Your task to perform on an android device: install app "AliExpress" Image 0: 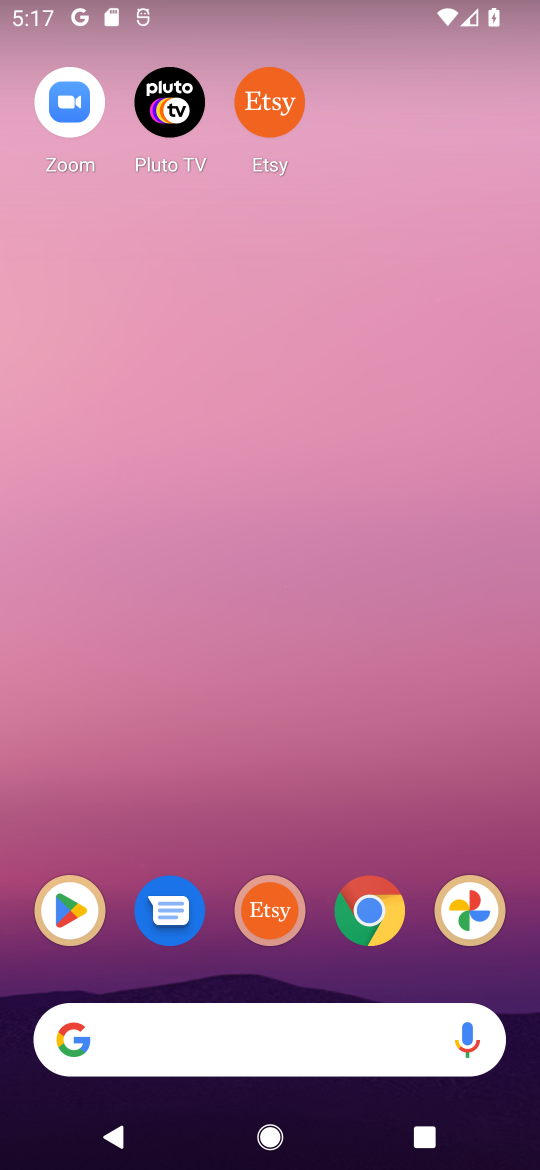
Step 0: click (62, 914)
Your task to perform on an android device: install app "AliExpress" Image 1: 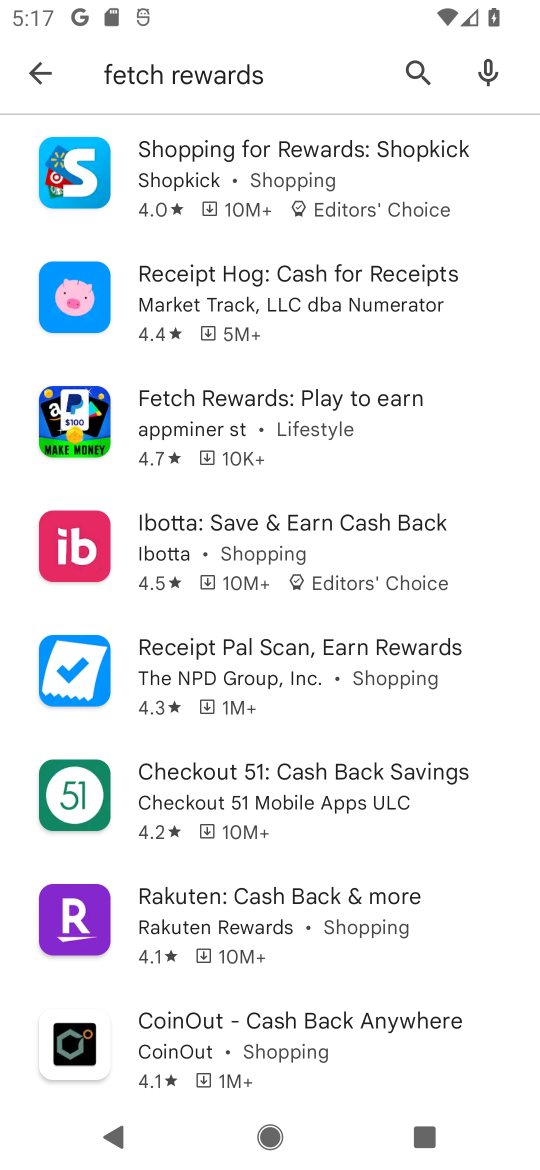
Step 1: click (418, 80)
Your task to perform on an android device: install app "AliExpress" Image 2: 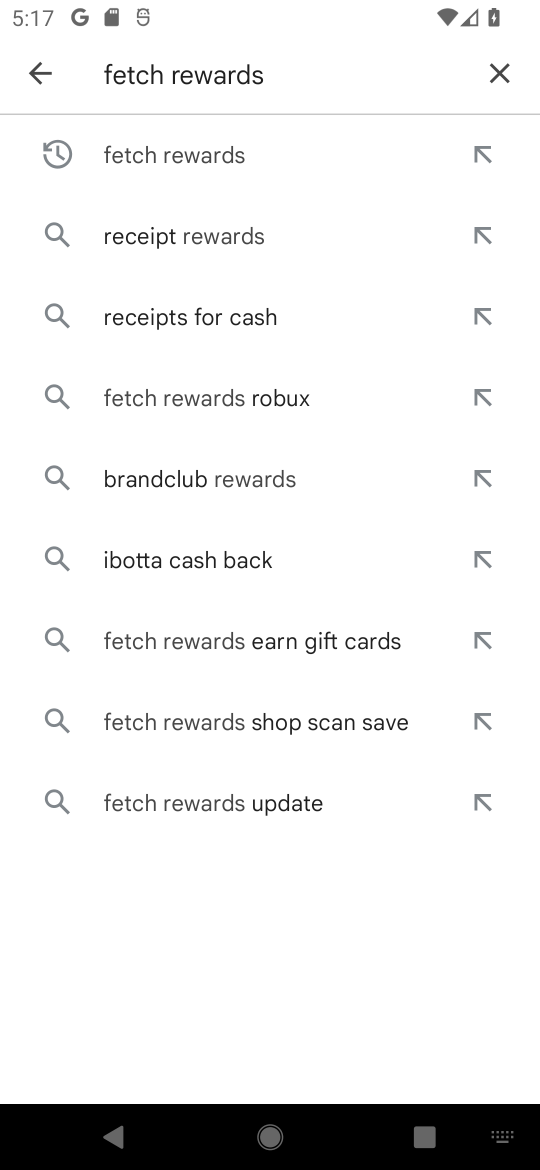
Step 2: click (492, 62)
Your task to perform on an android device: install app "AliExpress" Image 3: 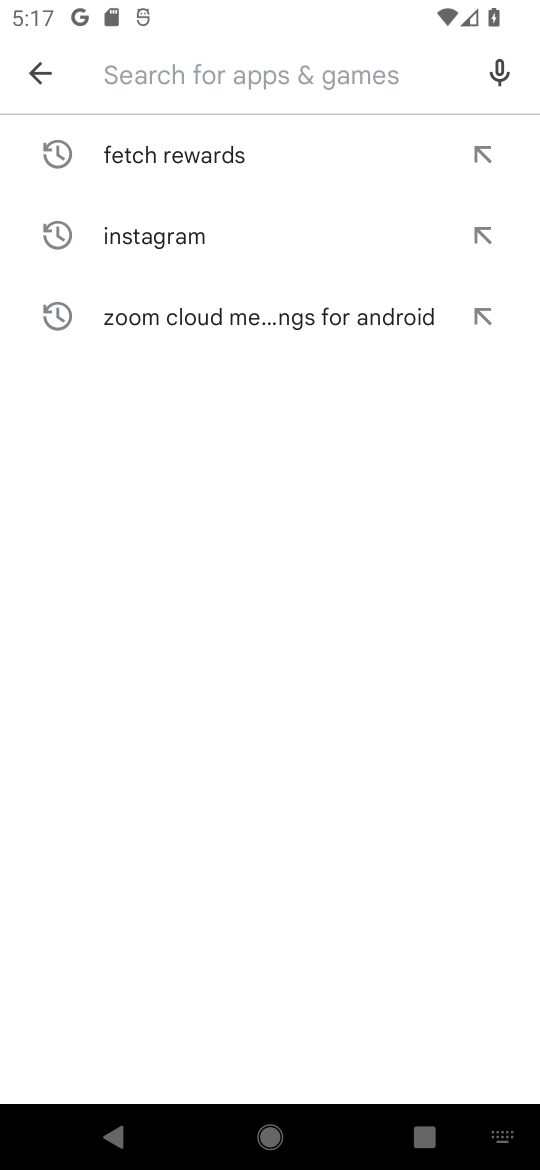
Step 3: type "AliExpress"
Your task to perform on an android device: install app "AliExpress" Image 4: 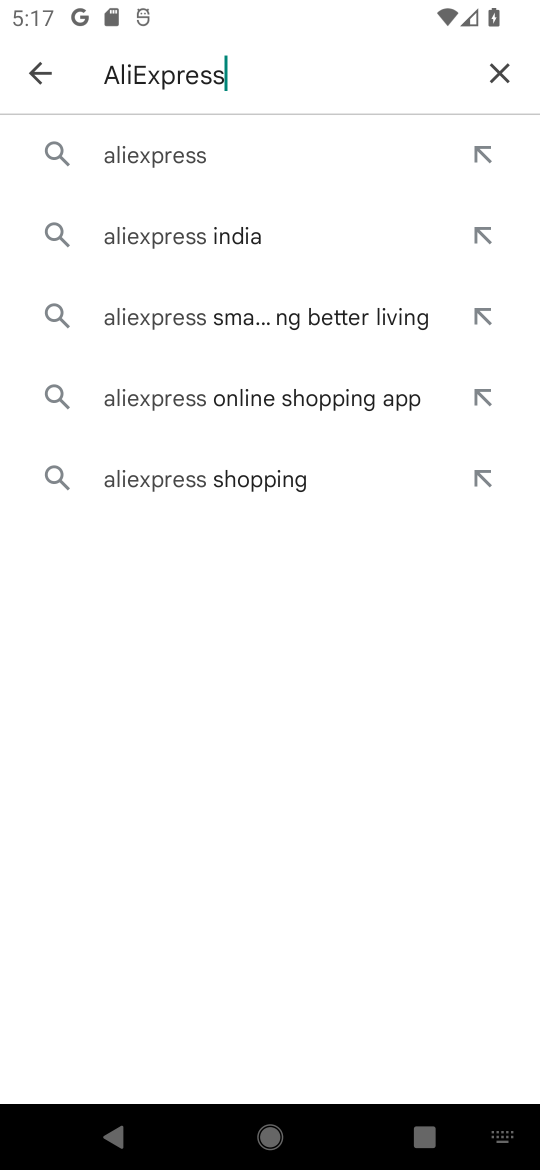
Step 4: click (200, 167)
Your task to perform on an android device: install app "AliExpress" Image 5: 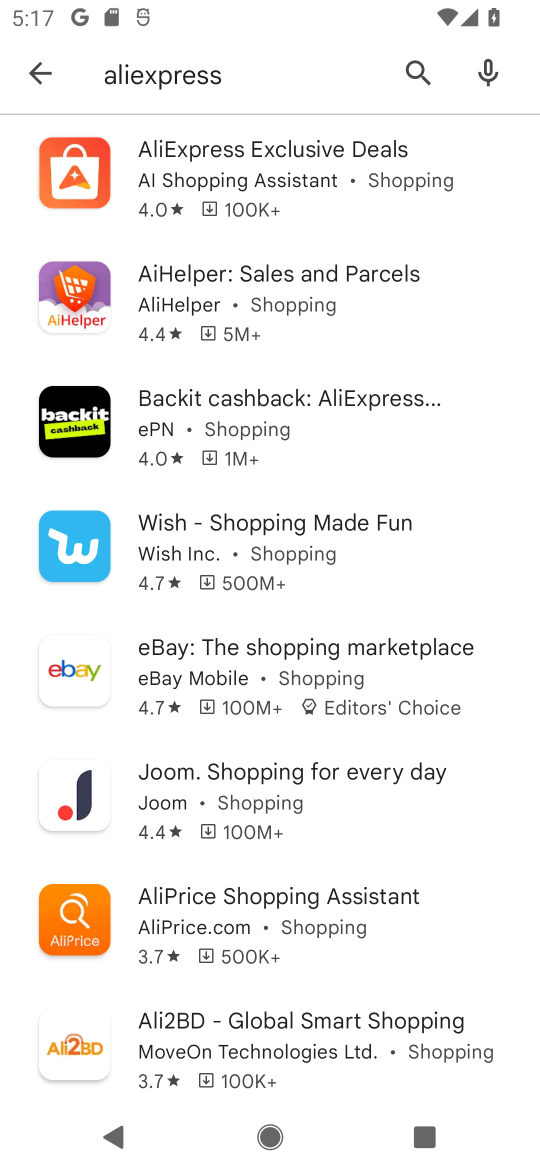
Step 5: task complete